Your task to perform on an android device: show emergency info Image 0: 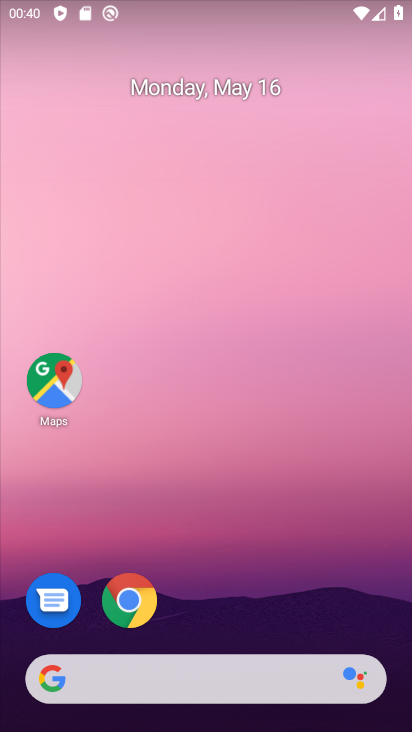
Step 0: drag from (357, 573) to (353, 169)
Your task to perform on an android device: show emergency info Image 1: 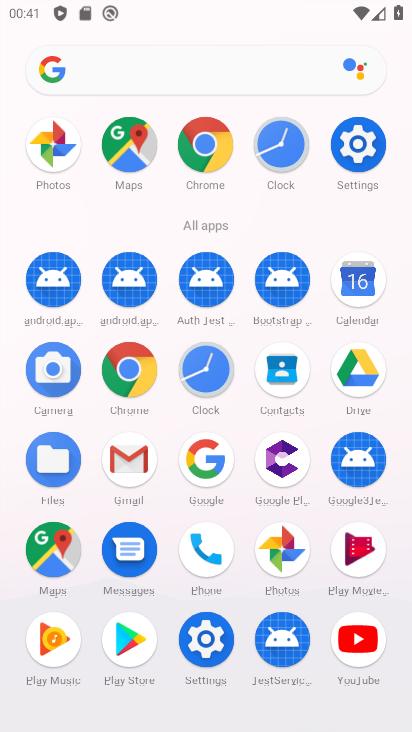
Step 1: click (351, 159)
Your task to perform on an android device: show emergency info Image 2: 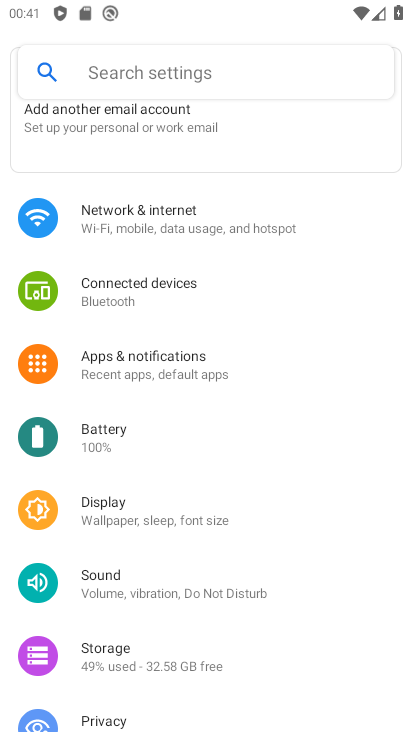
Step 2: click (369, 556)
Your task to perform on an android device: show emergency info Image 3: 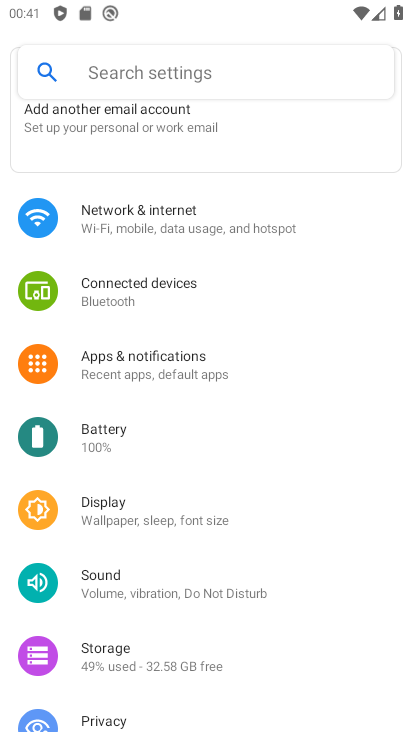
Step 3: drag from (372, 658) to (357, 500)
Your task to perform on an android device: show emergency info Image 4: 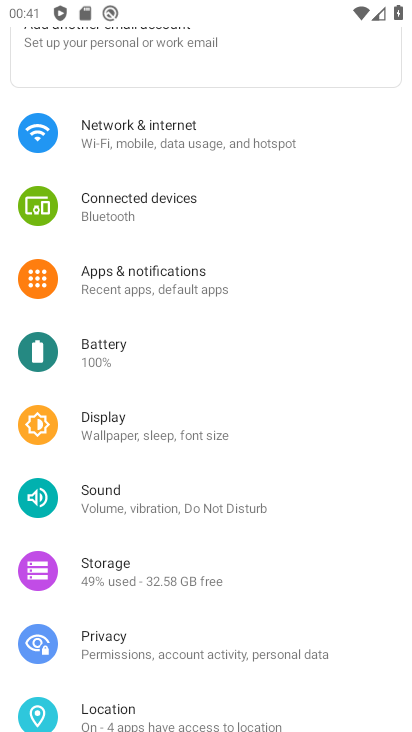
Step 4: drag from (373, 662) to (372, 475)
Your task to perform on an android device: show emergency info Image 5: 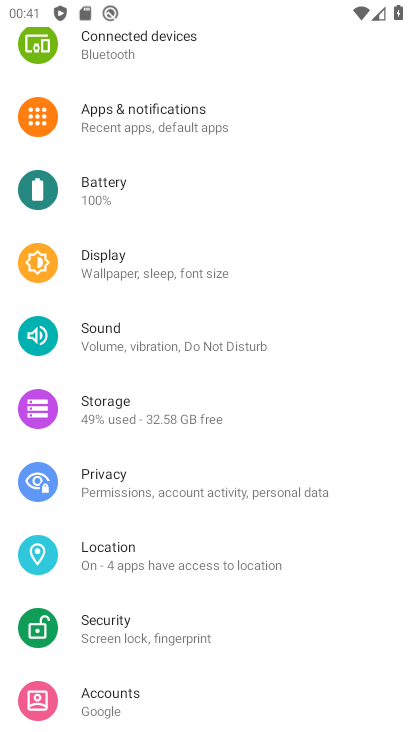
Step 5: drag from (359, 657) to (362, 504)
Your task to perform on an android device: show emergency info Image 6: 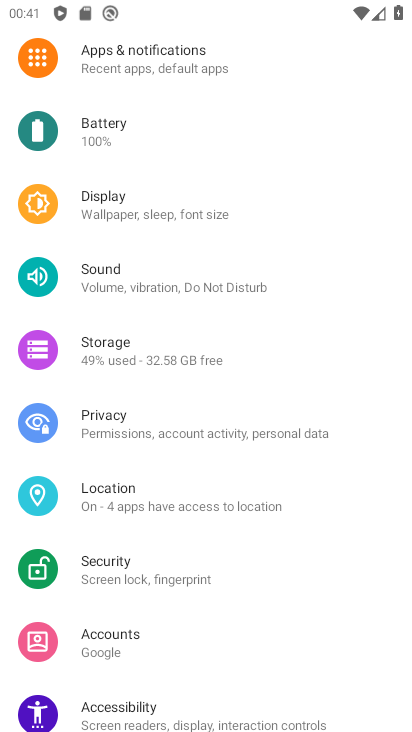
Step 6: drag from (359, 610) to (356, 416)
Your task to perform on an android device: show emergency info Image 7: 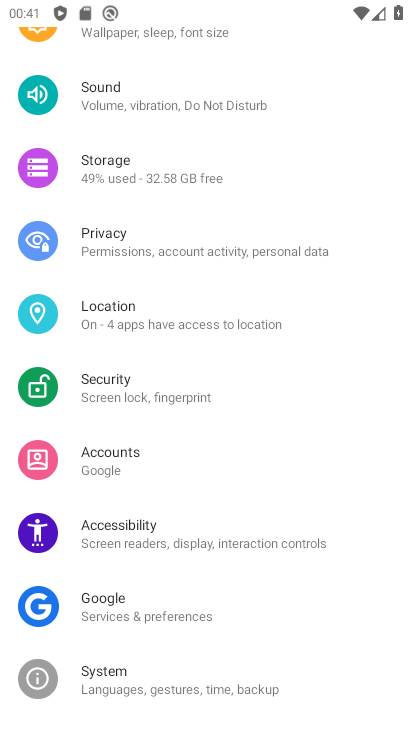
Step 7: drag from (367, 647) to (365, 475)
Your task to perform on an android device: show emergency info Image 8: 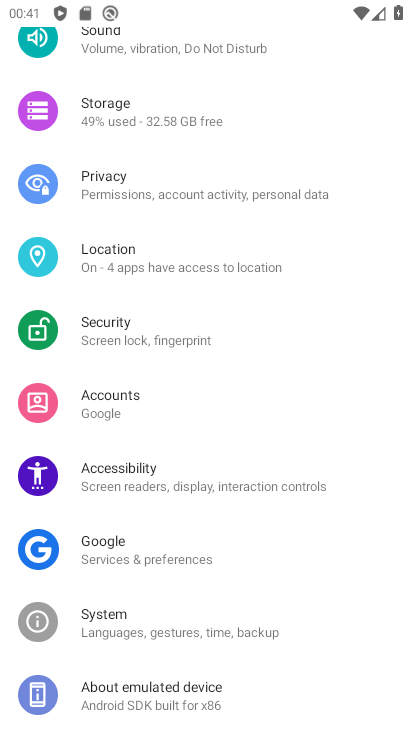
Step 8: drag from (352, 589) to (354, 425)
Your task to perform on an android device: show emergency info Image 9: 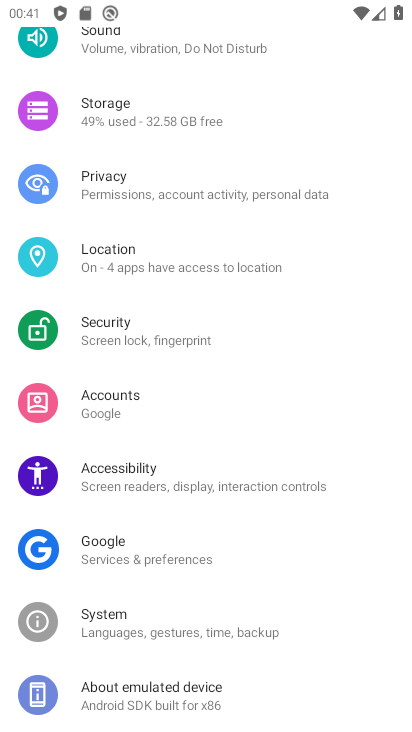
Step 9: click (239, 694)
Your task to perform on an android device: show emergency info Image 10: 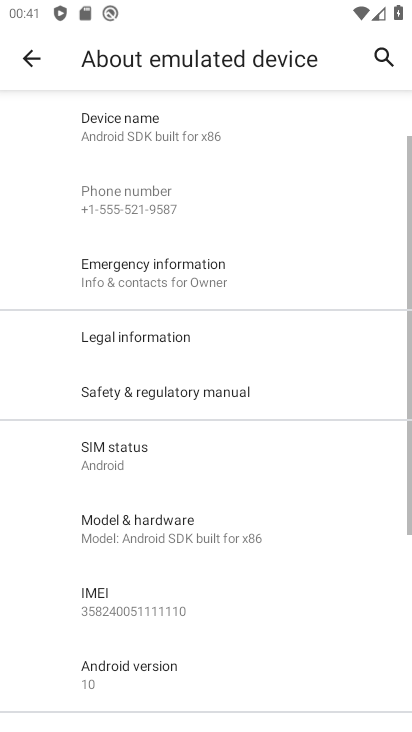
Step 10: click (174, 272)
Your task to perform on an android device: show emergency info Image 11: 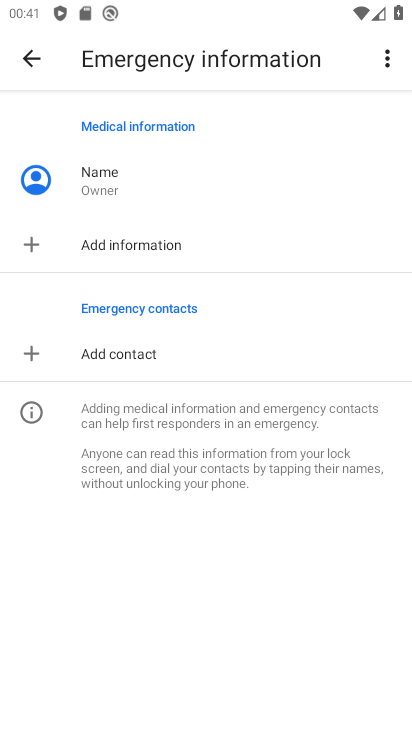
Step 11: task complete